Your task to perform on an android device: Go to Amazon Image 0: 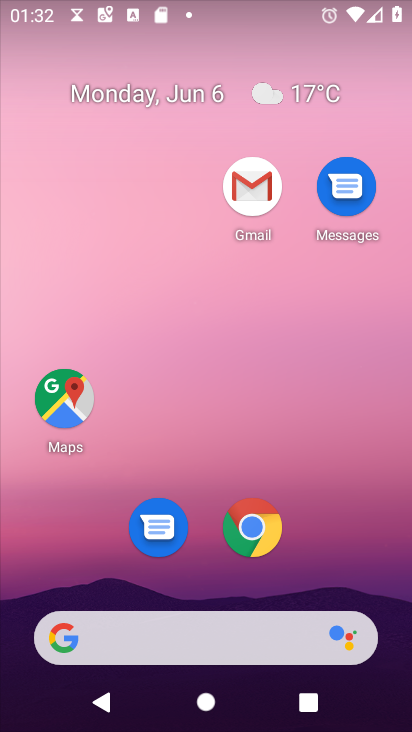
Step 0: click (267, 532)
Your task to perform on an android device: Go to Amazon Image 1: 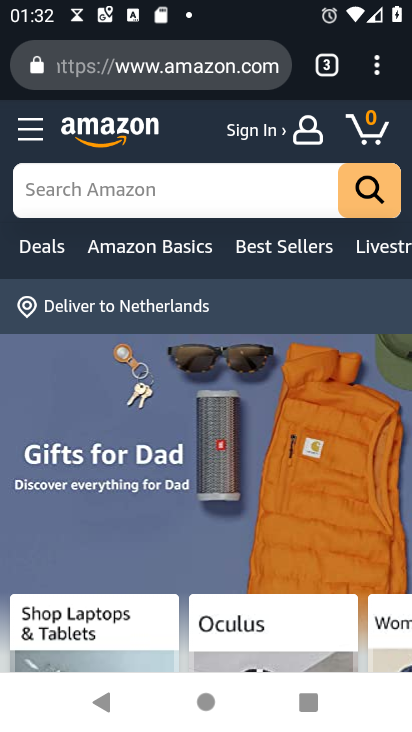
Step 1: task complete